Your task to perform on an android device: Go to calendar. Show me events next week Image 0: 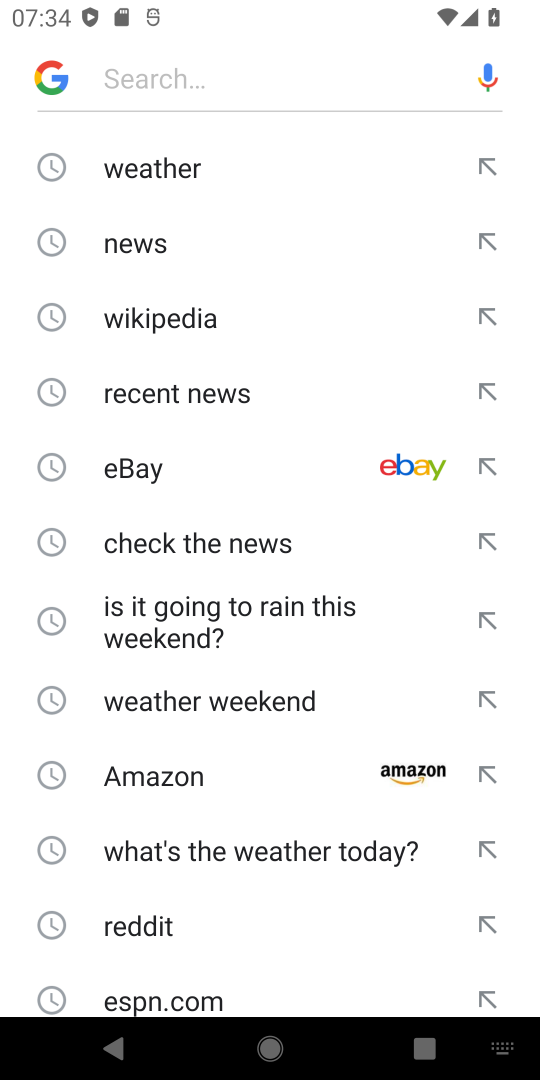
Step 0: press home button
Your task to perform on an android device: Go to calendar. Show me events next week Image 1: 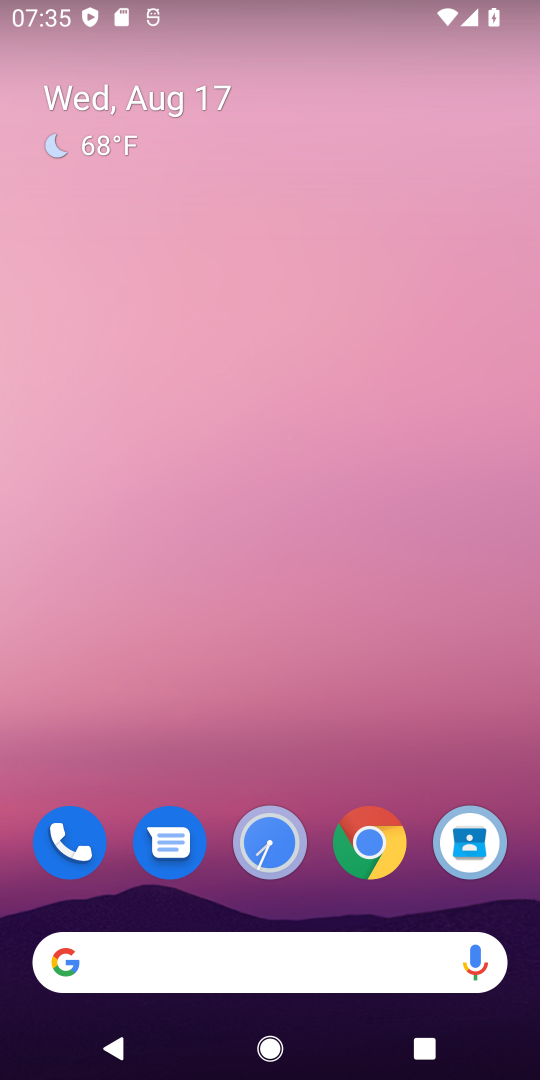
Step 1: drag from (331, 704) to (418, 2)
Your task to perform on an android device: Go to calendar. Show me events next week Image 2: 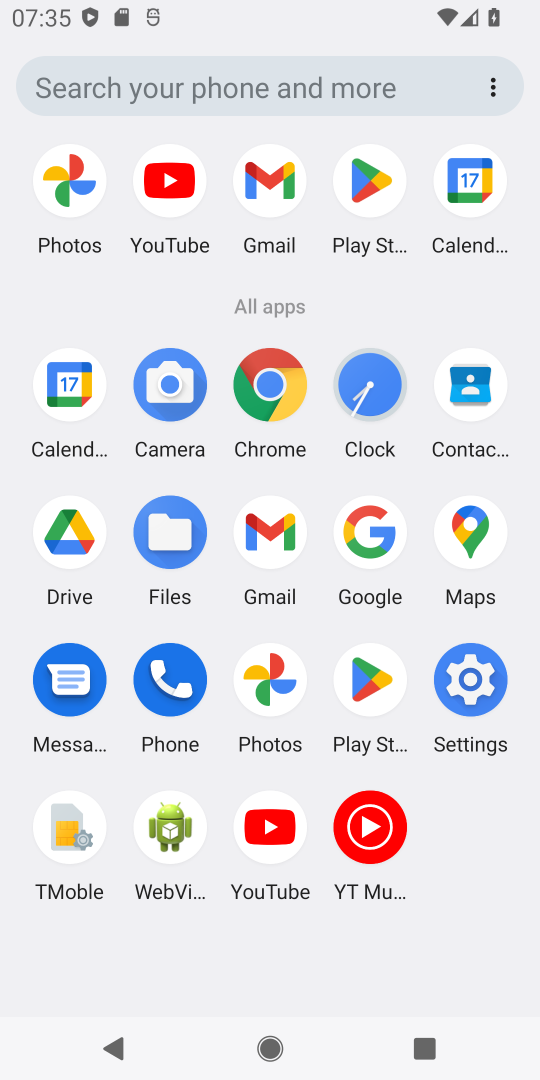
Step 2: click (475, 181)
Your task to perform on an android device: Go to calendar. Show me events next week Image 3: 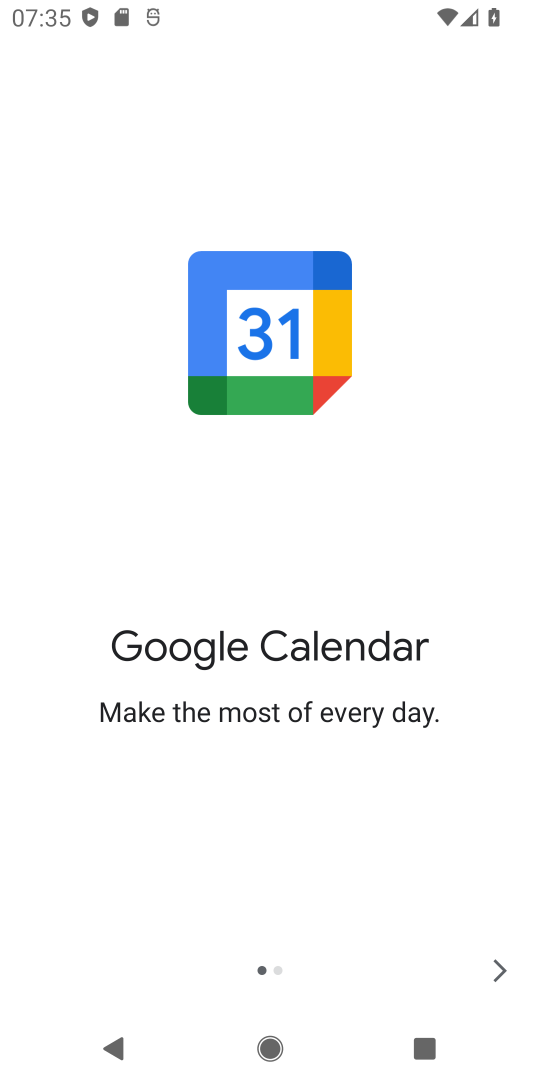
Step 3: click (502, 965)
Your task to perform on an android device: Go to calendar. Show me events next week Image 4: 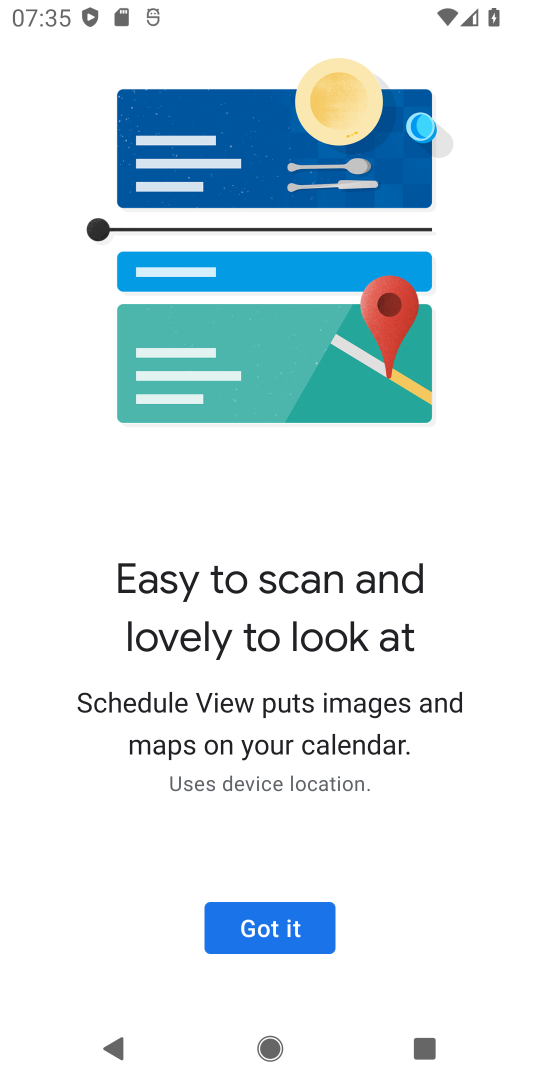
Step 4: click (302, 929)
Your task to perform on an android device: Go to calendar. Show me events next week Image 5: 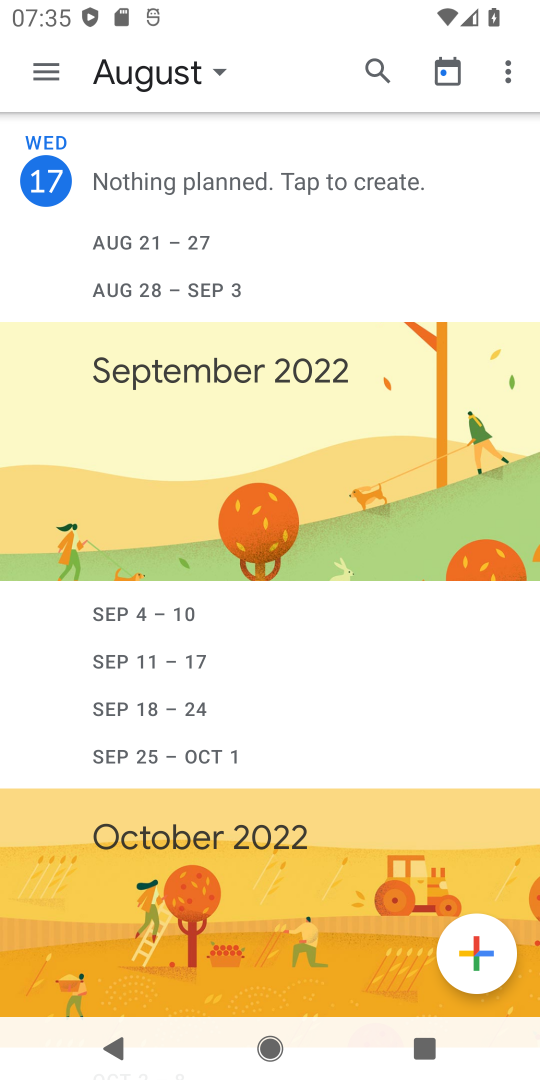
Step 5: click (50, 64)
Your task to perform on an android device: Go to calendar. Show me events next week Image 6: 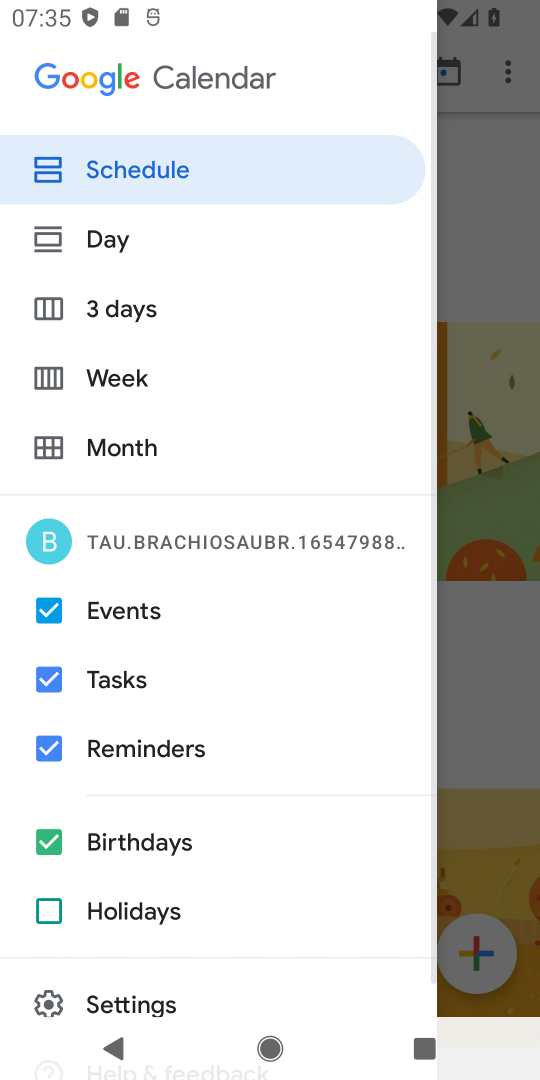
Step 6: click (37, 368)
Your task to perform on an android device: Go to calendar. Show me events next week Image 7: 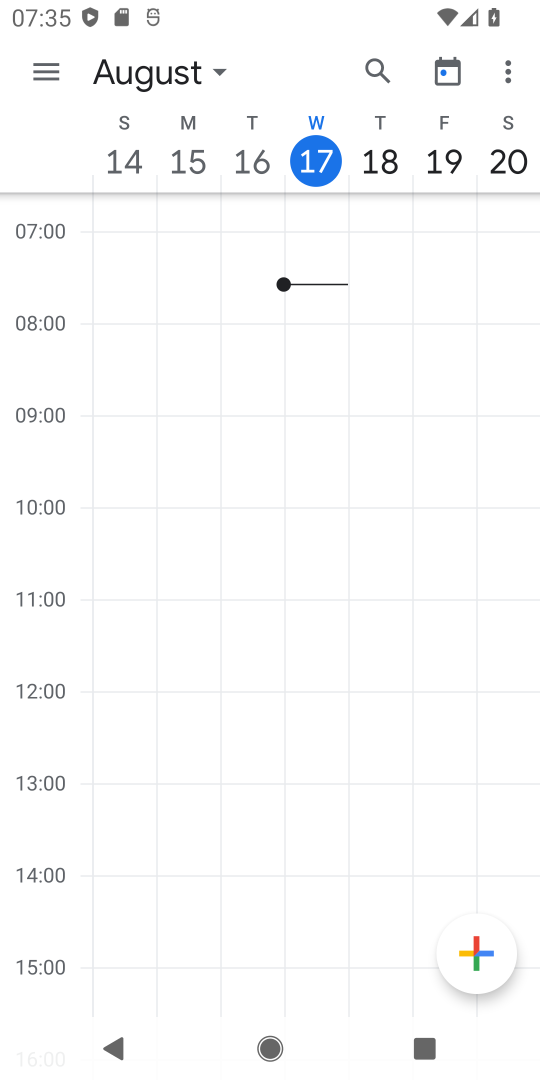
Step 7: task complete